Your task to perform on an android device: Do I have any events today? Image 0: 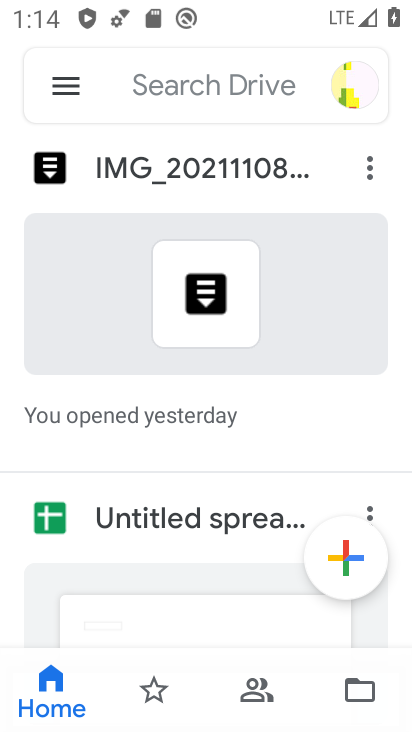
Step 0: press home button
Your task to perform on an android device: Do I have any events today? Image 1: 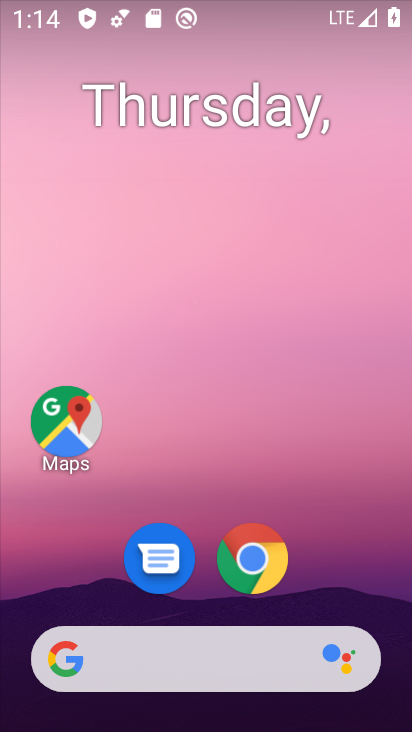
Step 1: drag from (342, 603) to (259, 117)
Your task to perform on an android device: Do I have any events today? Image 2: 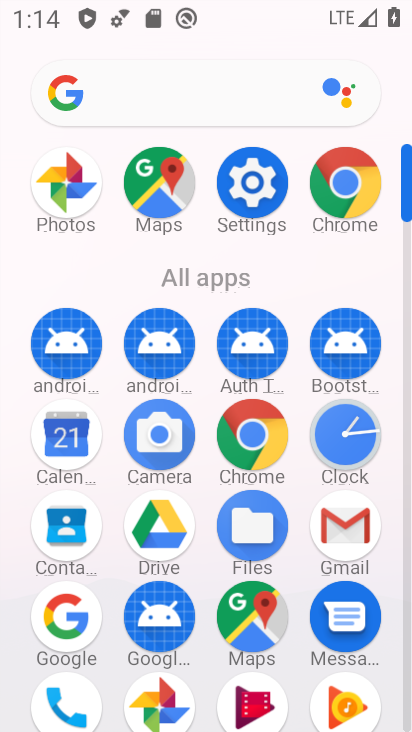
Step 2: click (72, 418)
Your task to perform on an android device: Do I have any events today? Image 3: 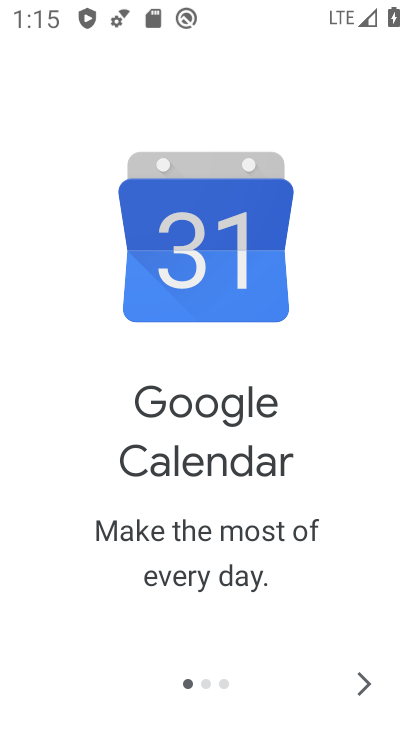
Step 3: click (357, 681)
Your task to perform on an android device: Do I have any events today? Image 4: 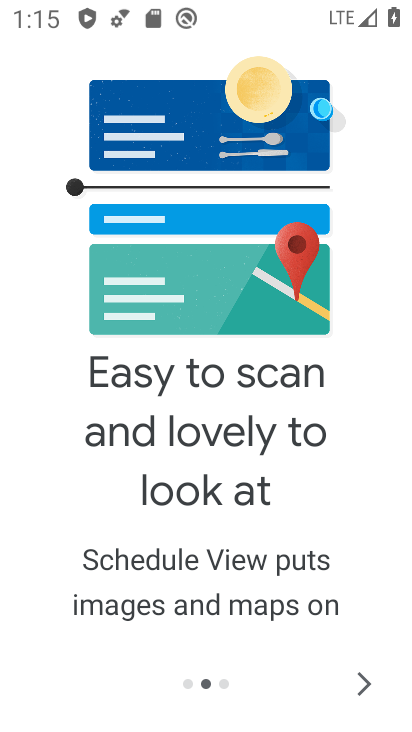
Step 4: click (359, 683)
Your task to perform on an android device: Do I have any events today? Image 5: 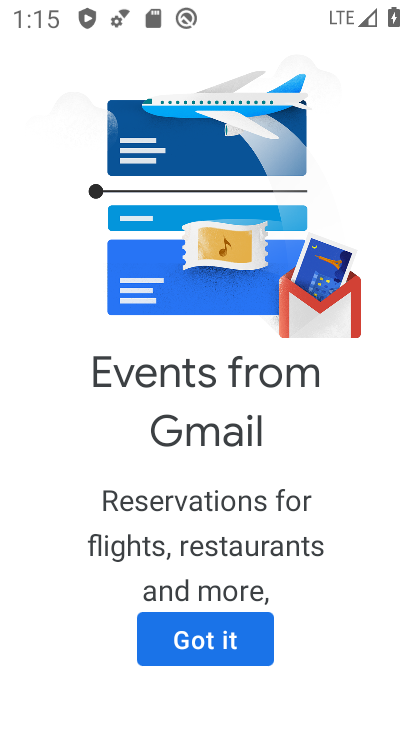
Step 5: click (205, 644)
Your task to perform on an android device: Do I have any events today? Image 6: 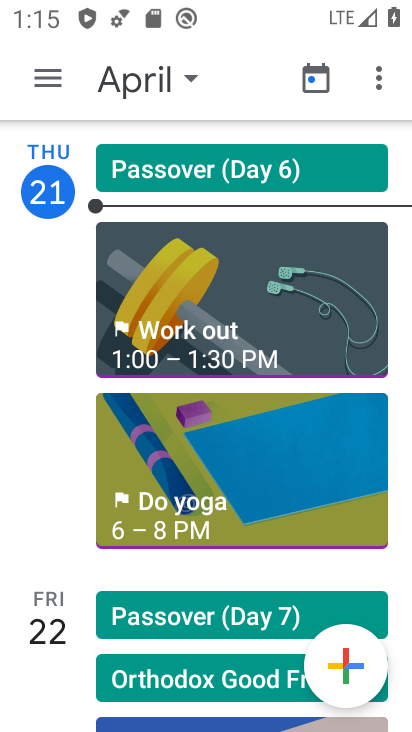
Step 6: click (177, 80)
Your task to perform on an android device: Do I have any events today? Image 7: 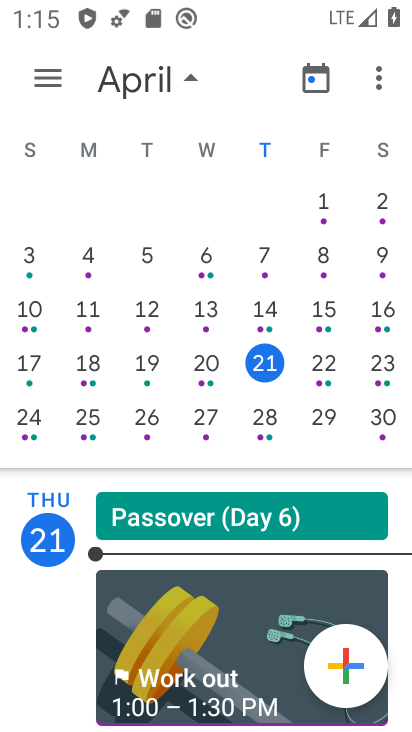
Step 7: click (271, 360)
Your task to perform on an android device: Do I have any events today? Image 8: 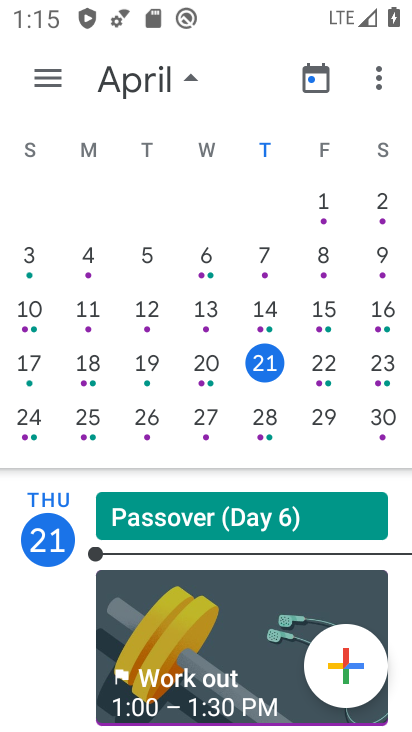
Step 8: task complete